Your task to perform on an android device: turn on sleep mode Image 0: 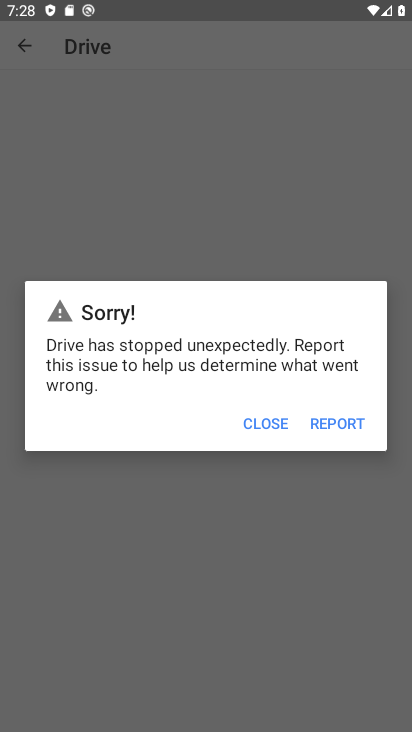
Step 0: press home button
Your task to perform on an android device: turn on sleep mode Image 1: 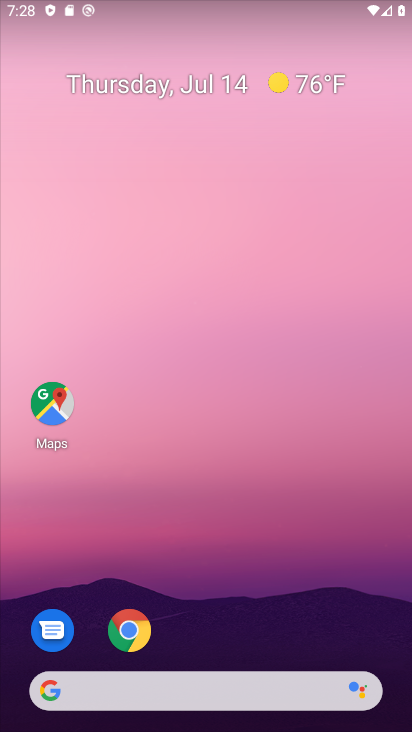
Step 1: drag from (265, 649) to (115, 143)
Your task to perform on an android device: turn on sleep mode Image 2: 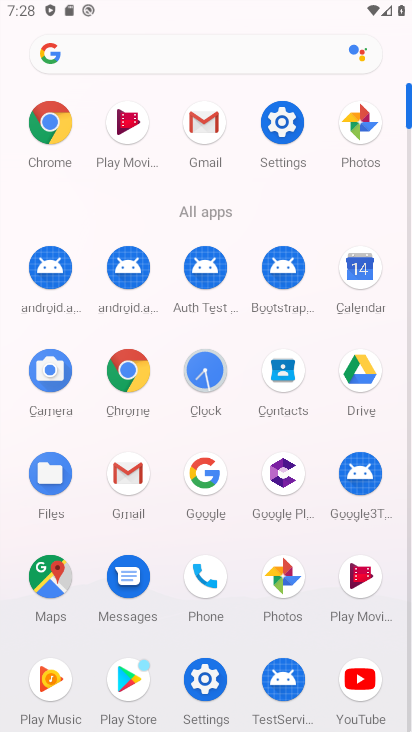
Step 2: click (290, 112)
Your task to perform on an android device: turn on sleep mode Image 3: 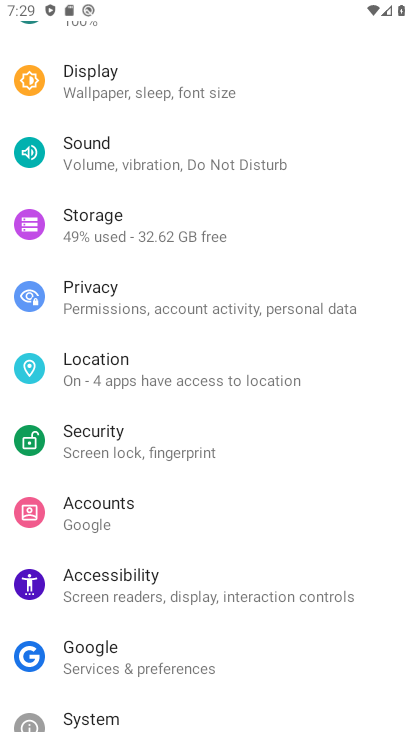
Step 3: task complete